Your task to perform on an android device: add a contact in the contacts app Image 0: 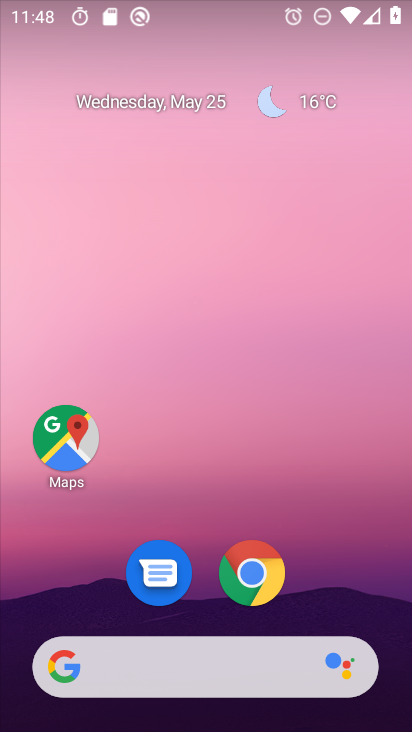
Step 0: drag from (387, 605) to (322, 13)
Your task to perform on an android device: add a contact in the contacts app Image 1: 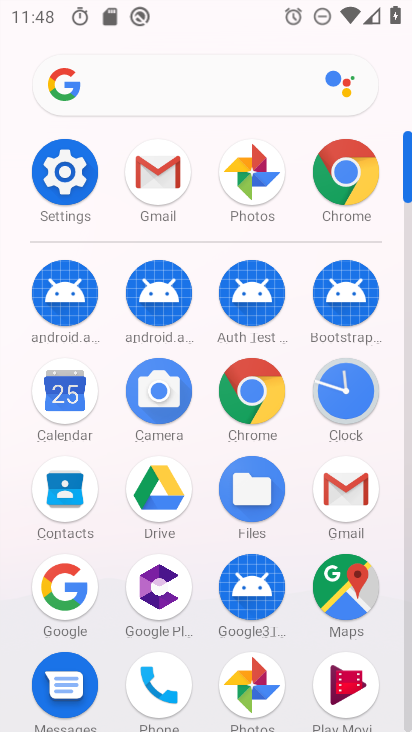
Step 1: click (65, 498)
Your task to perform on an android device: add a contact in the contacts app Image 2: 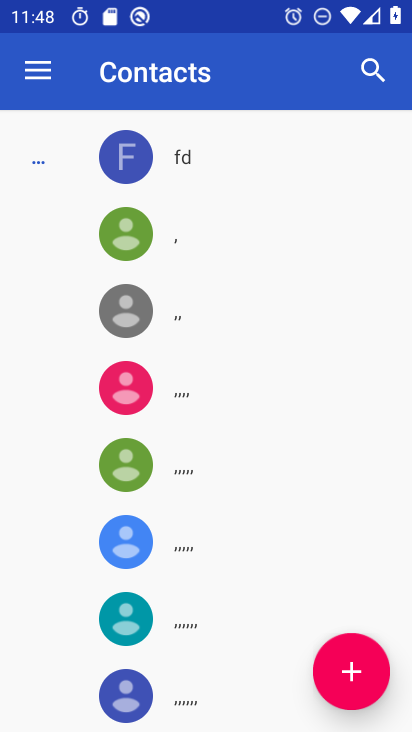
Step 2: click (354, 678)
Your task to perform on an android device: add a contact in the contacts app Image 3: 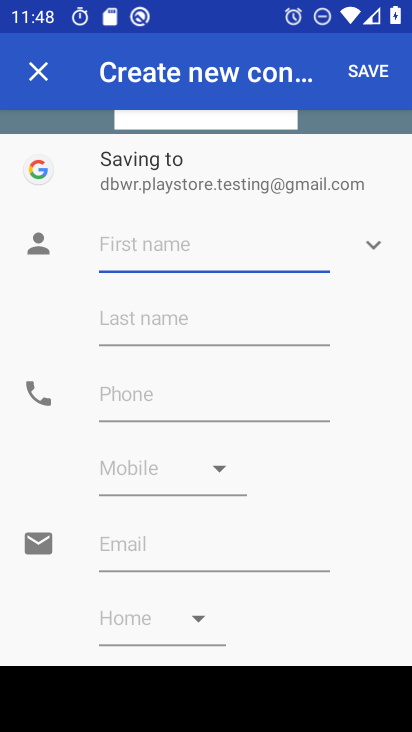
Step 3: click (118, 250)
Your task to perform on an android device: add a contact in the contacts app Image 4: 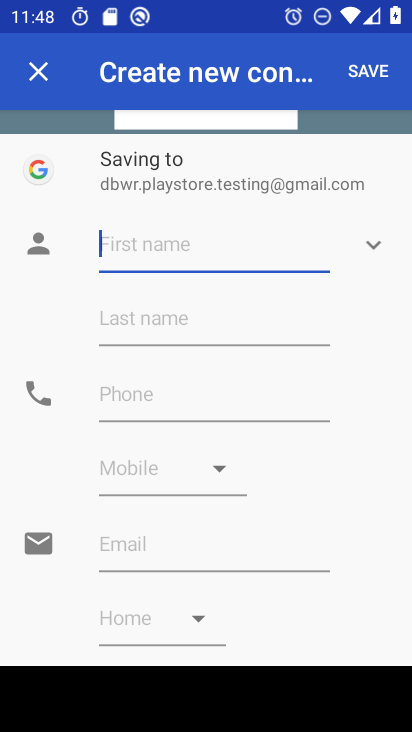
Step 4: type "vimmy"
Your task to perform on an android device: add a contact in the contacts app Image 5: 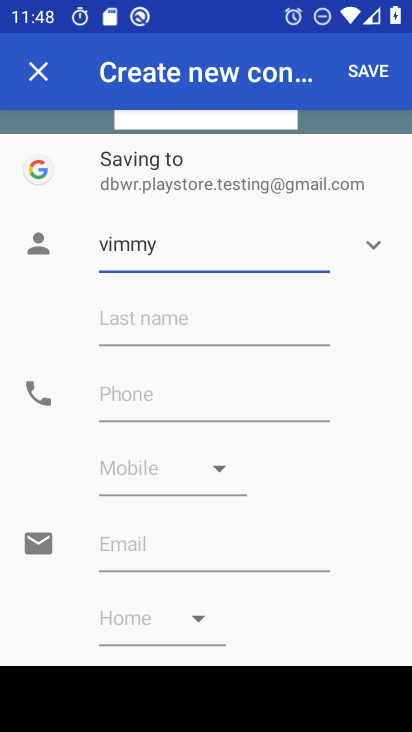
Step 5: click (173, 393)
Your task to perform on an android device: add a contact in the contacts app Image 6: 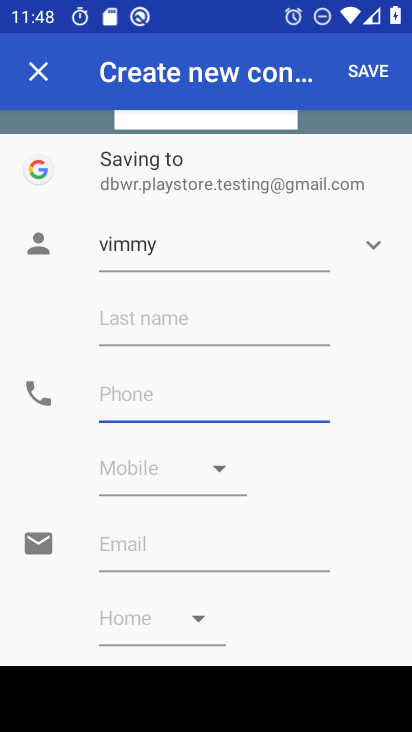
Step 6: type "9876544"
Your task to perform on an android device: add a contact in the contacts app Image 7: 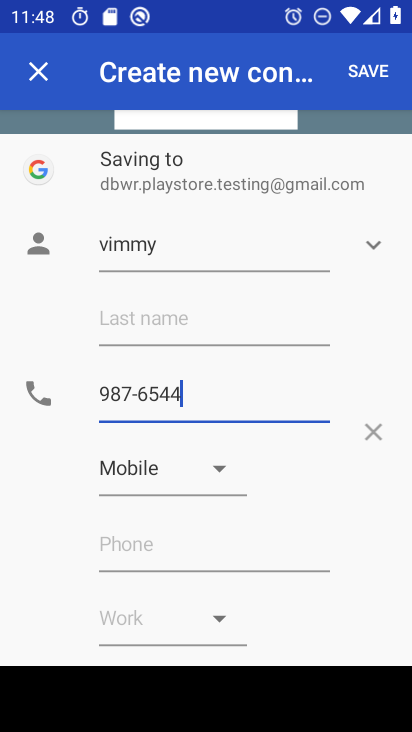
Step 7: click (361, 78)
Your task to perform on an android device: add a contact in the contacts app Image 8: 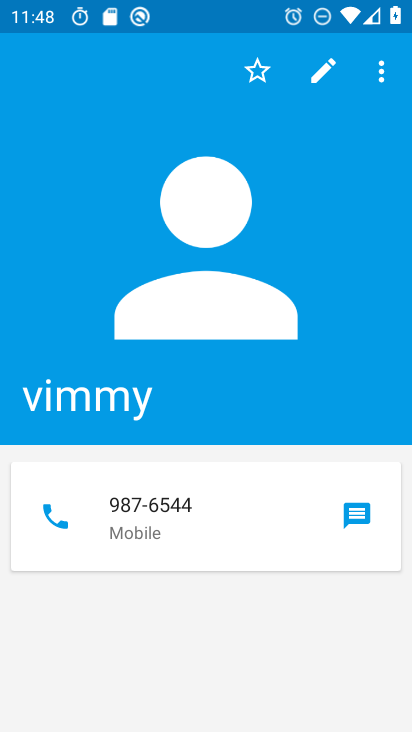
Step 8: task complete